Your task to perform on an android device: What's the weather? Image 0: 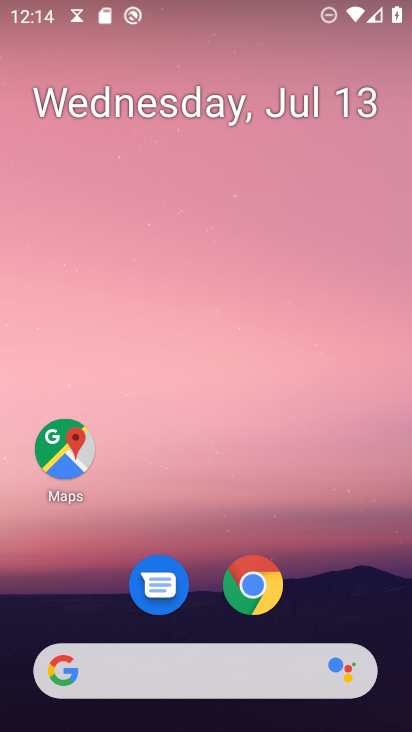
Step 0: click (113, 663)
Your task to perform on an android device: What's the weather? Image 1: 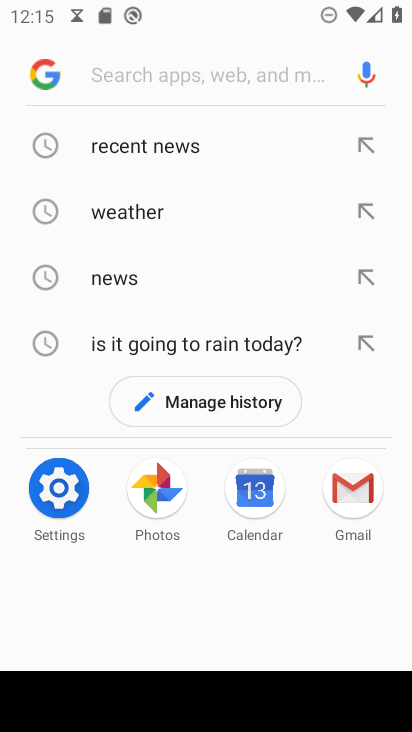
Step 1: click (138, 216)
Your task to perform on an android device: What's the weather? Image 2: 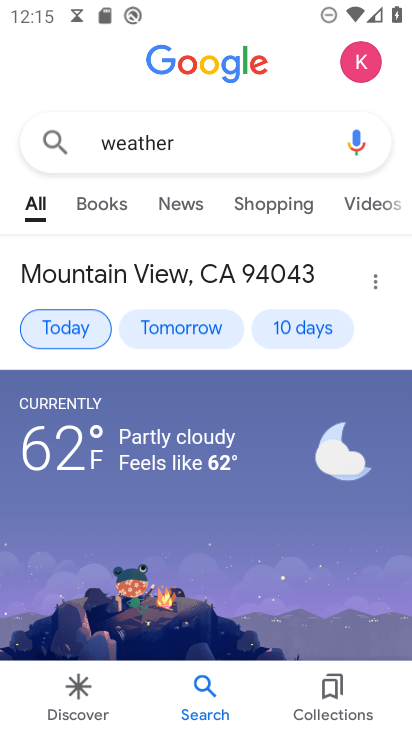
Step 2: task complete